Your task to perform on an android device: Search for pizza restaurants on Maps Image 0: 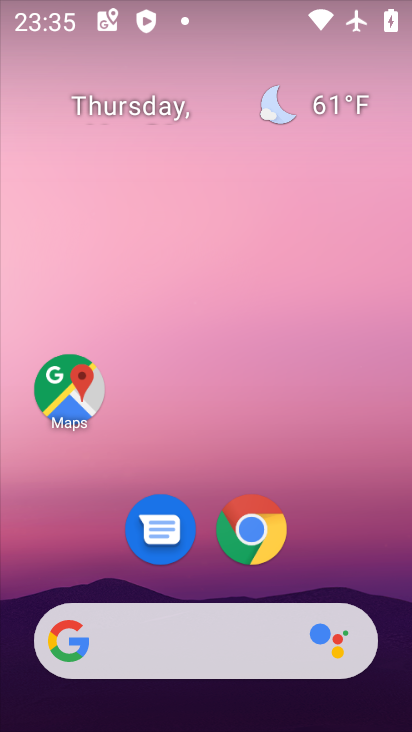
Step 0: click (52, 386)
Your task to perform on an android device: Search for pizza restaurants on Maps Image 1: 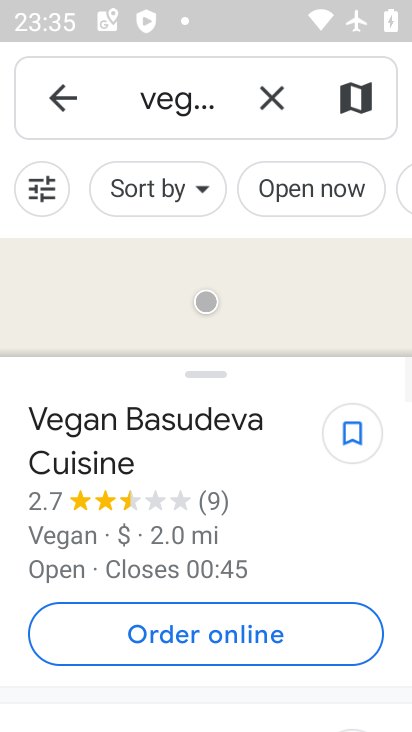
Step 1: click (260, 93)
Your task to perform on an android device: Search for pizza restaurants on Maps Image 2: 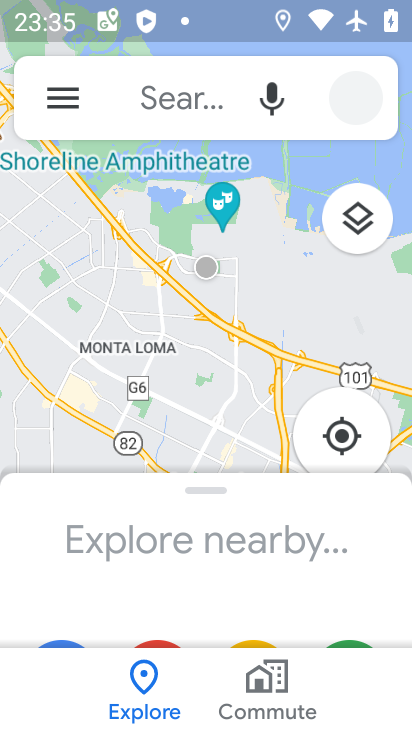
Step 2: click (150, 98)
Your task to perform on an android device: Search for pizza restaurants on Maps Image 3: 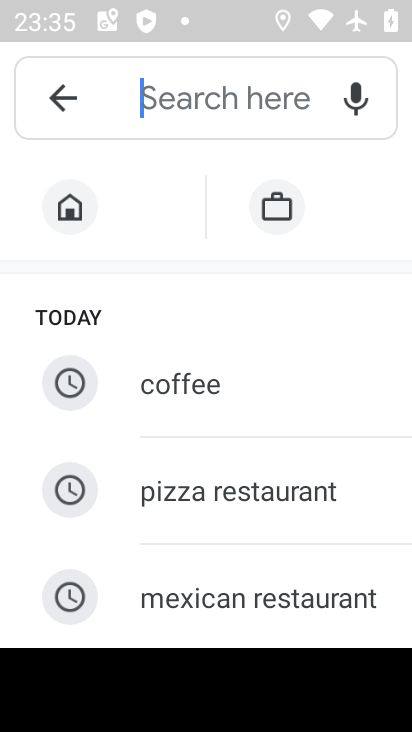
Step 3: click (215, 516)
Your task to perform on an android device: Search for pizza restaurants on Maps Image 4: 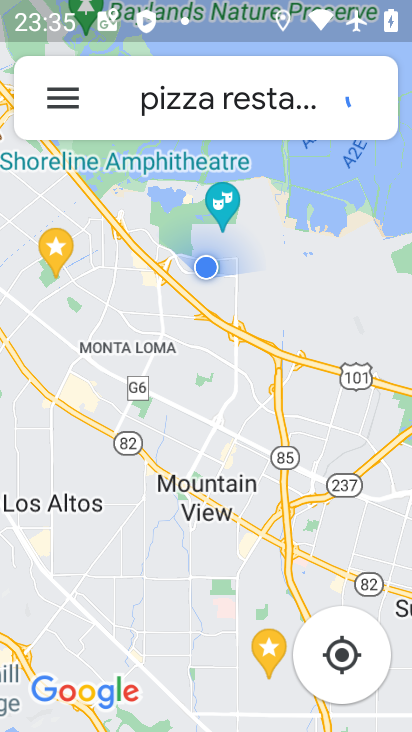
Step 4: task complete